Your task to perform on an android device: turn on improve location accuracy Image 0: 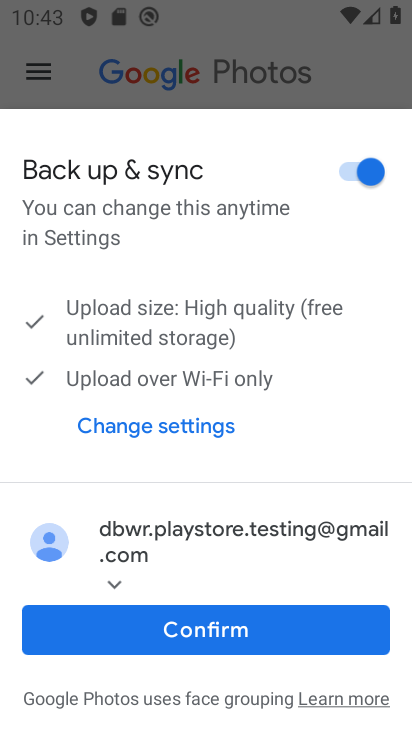
Step 0: press home button
Your task to perform on an android device: turn on improve location accuracy Image 1: 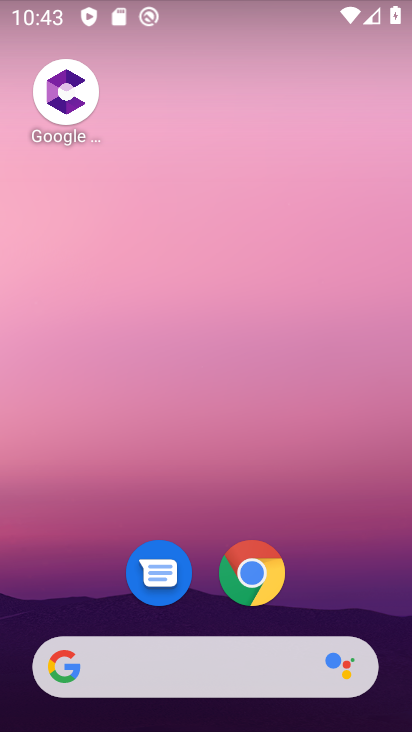
Step 1: drag from (179, 634) to (179, 228)
Your task to perform on an android device: turn on improve location accuracy Image 2: 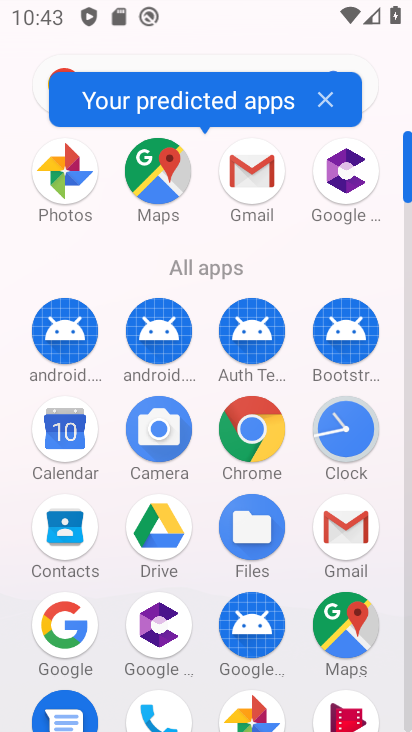
Step 2: drag from (186, 656) to (184, 254)
Your task to perform on an android device: turn on improve location accuracy Image 3: 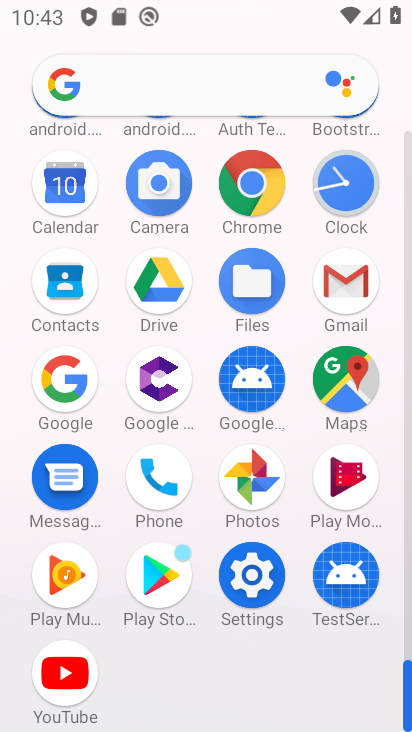
Step 3: click (253, 590)
Your task to perform on an android device: turn on improve location accuracy Image 4: 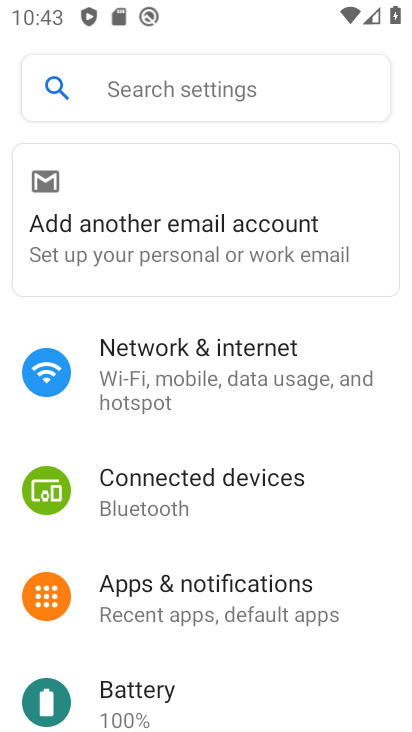
Step 4: drag from (237, 674) to (208, 243)
Your task to perform on an android device: turn on improve location accuracy Image 5: 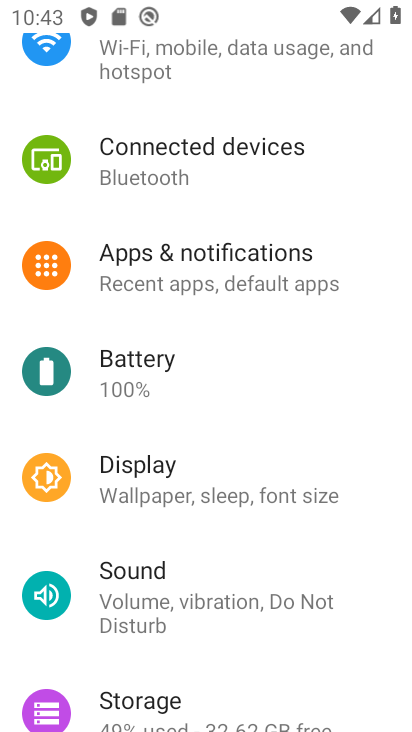
Step 5: drag from (177, 636) to (166, 200)
Your task to perform on an android device: turn on improve location accuracy Image 6: 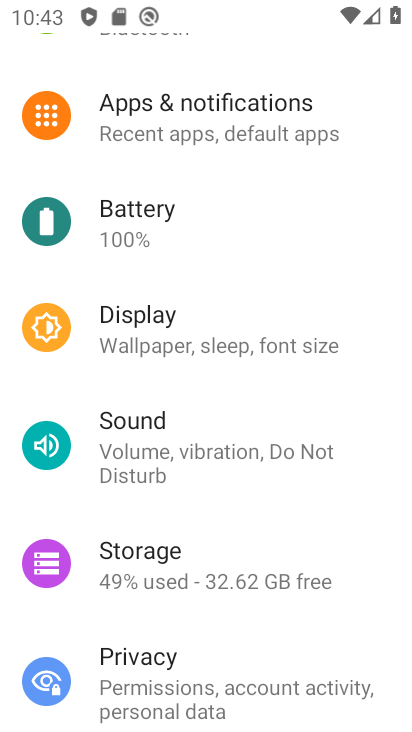
Step 6: drag from (148, 703) to (129, 321)
Your task to perform on an android device: turn on improve location accuracy Image 7: 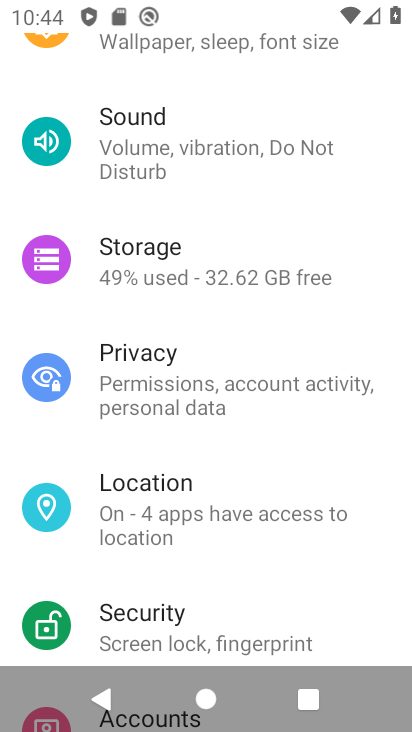
Step 7: click (146, 506)
Your task to perform on an android device: turn on improve location accuracy Image 8: 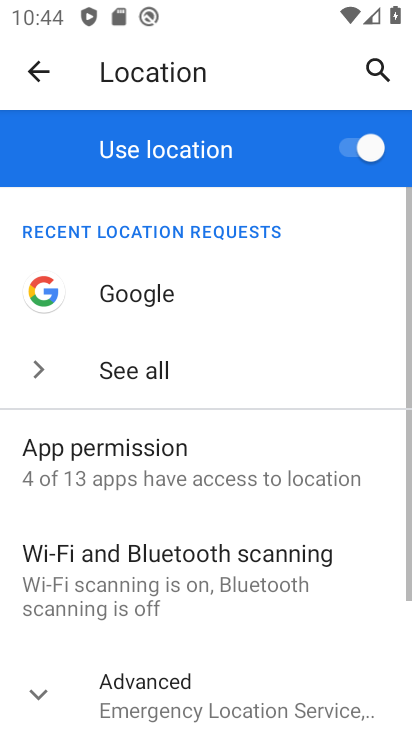
Step 8: click (160, 714)
Your task to perform on an android device: turn on improve location accuracy Image 9: 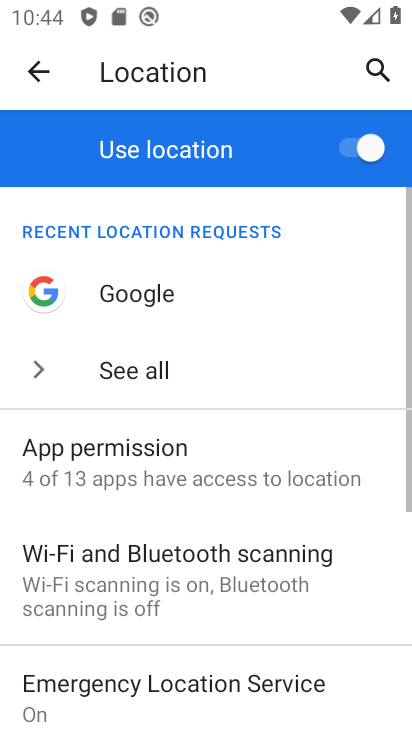
Step 9: task complete